Your task to perform on an android device: change notifications settings Image 0: 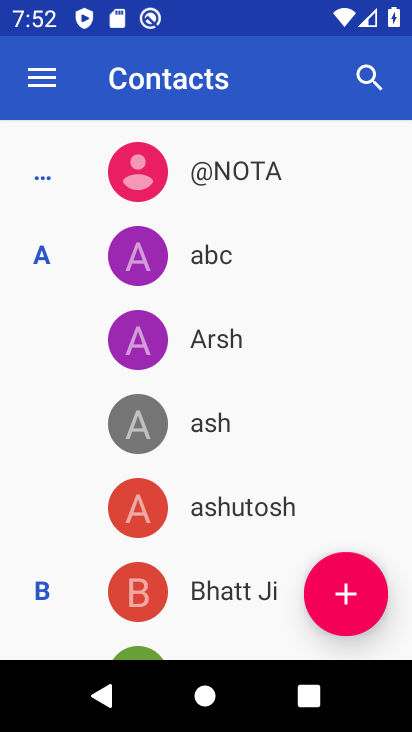
Step 0: press home button
Your task to perform on an android device: change notifications settings Image 1: 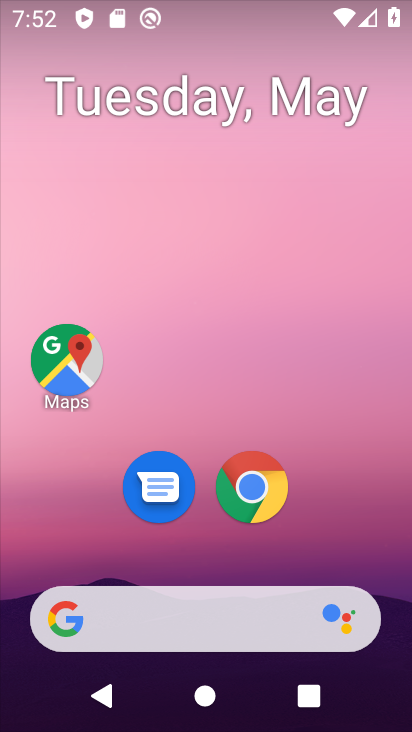
Step 1: drag from (376, 554) to (336, 142)
Your task to perform on an android device: change notifications settings Image 2: 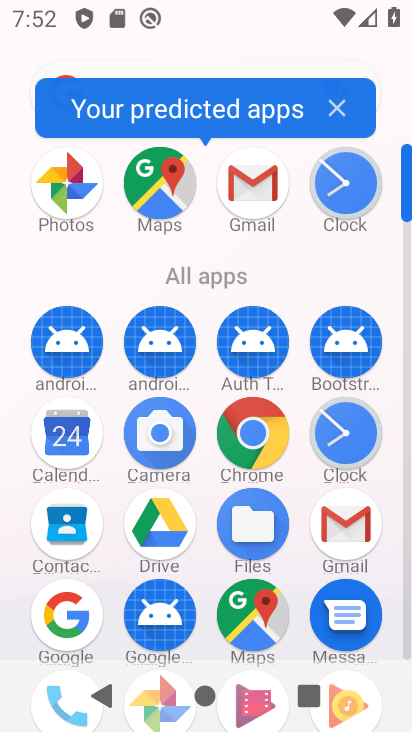
Step 2: drag from (268, 570) to (363, 334)
Your task to perform on an android device: change notifications settings Image 3: 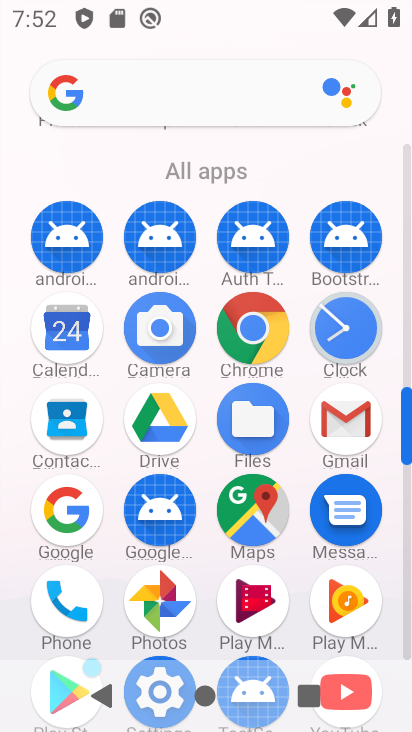
Step 3: drag from (278, 621) to (339, 317)
Your task to perform on an android device: change notifications settings Image 4: 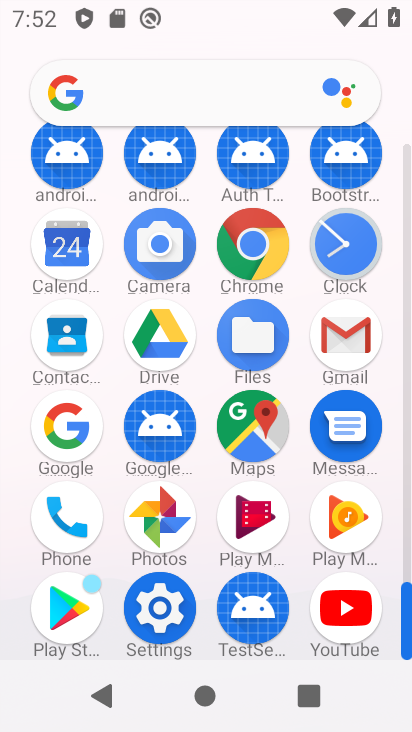
Step 4: click (170, 604)
Your task to perform on an android device: change notifications settings Image 5: 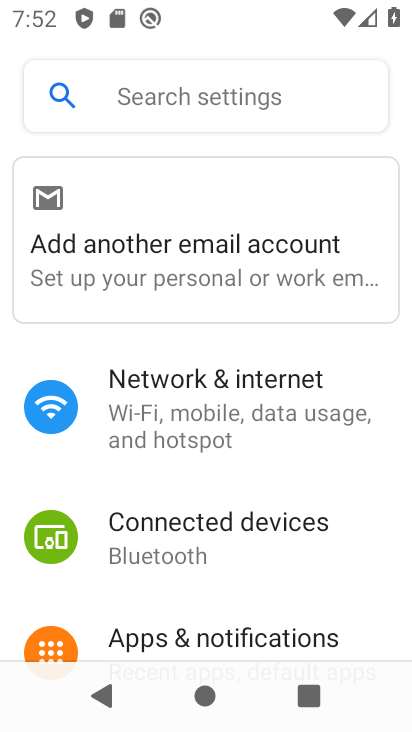
Step 5: click (209, 626)
Your task to perform on an android device: change notifications settings Image 6: 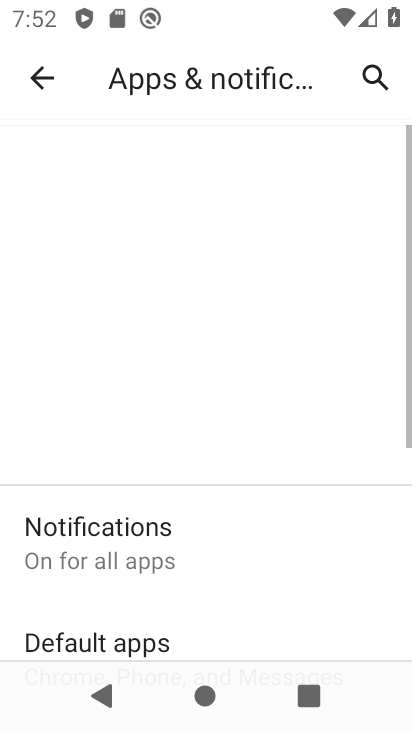
Step 6: click (176, 533)
Your task to perform on an android device: change notifications settings Image 7: 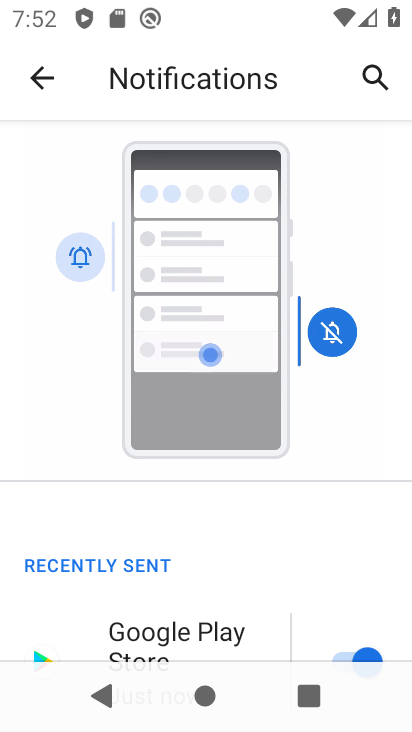
Step 7: drag from (215, 589) to (303, 263)
Your task to perform on an android device: change notifications settings Image 8: 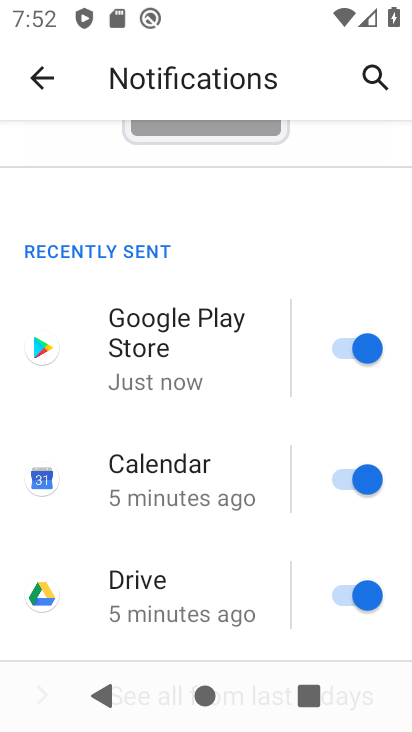
Step 8: click (343, 355)
Your task to perform on an android device: change notifications settings Image 9: 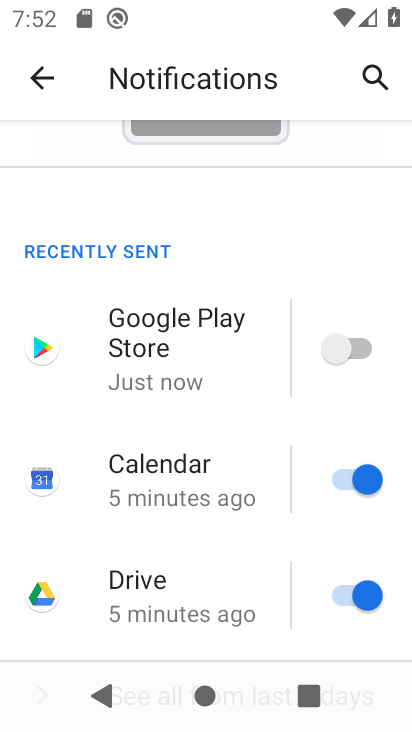
Step 9: task complete